Your task to perform on an android device: add a contact in the contacts app Image 0: 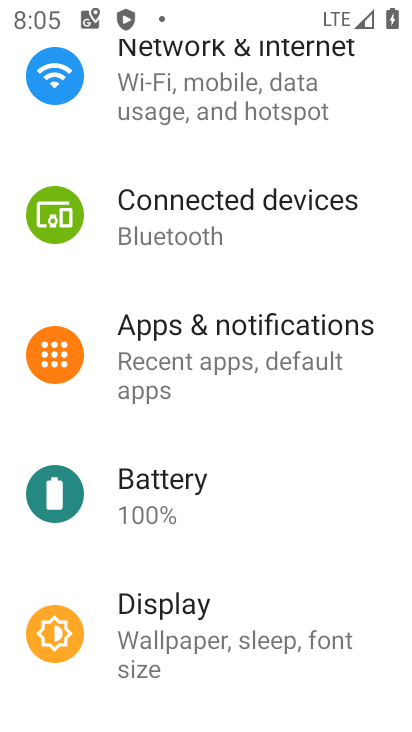
Step 0: press back button
Your task to perform on an android device: add a contact in the contacts app Image 1: 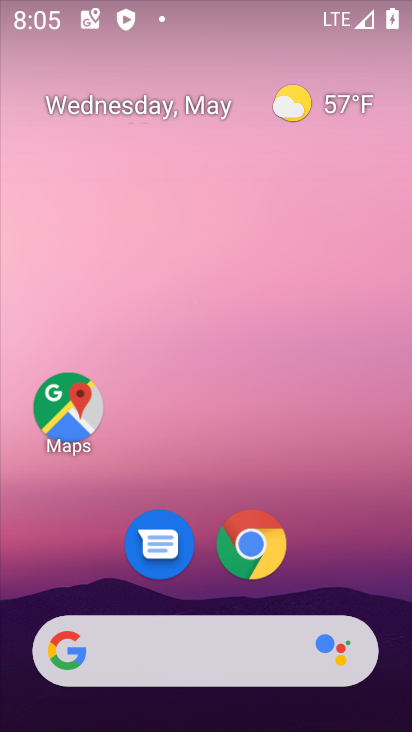
Step 1: drag from (376, 591) to (260, 8)
Your task to perform on an android device: add a contact in the contacts app Image 2: 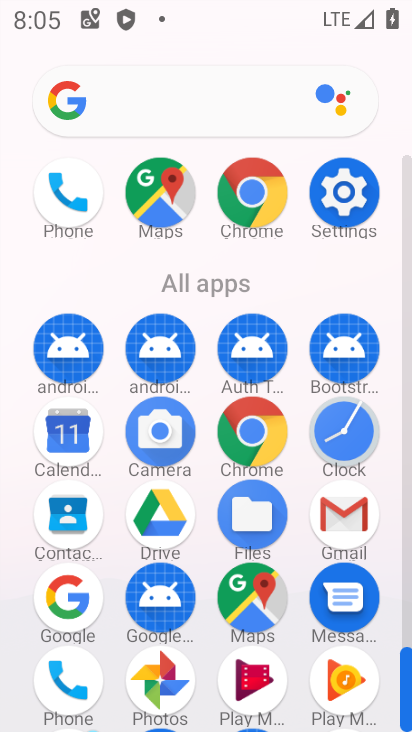
Step 2: drag from (7, 595) to (11, 284)
Your task to perform on an android device: add a contact in the contacts app Image 3: 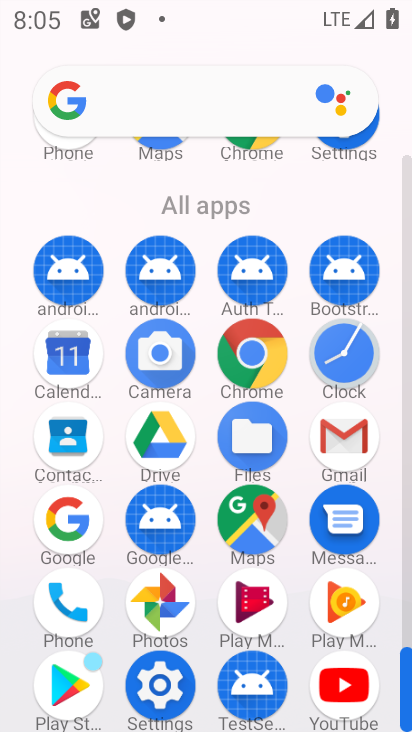
Step 3: click (63, 424)
Your task to perform on an android device: add a contact in the contacts app Image 4: 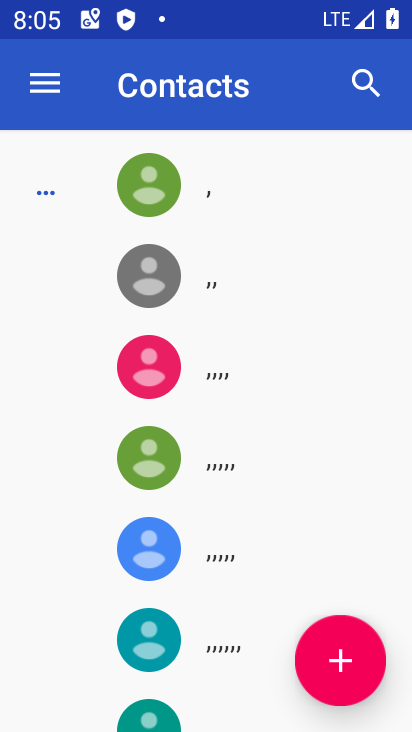
Step 4: click (343, 662)
Your task to perform on an android device: add a contact in the contacts app Image 5: 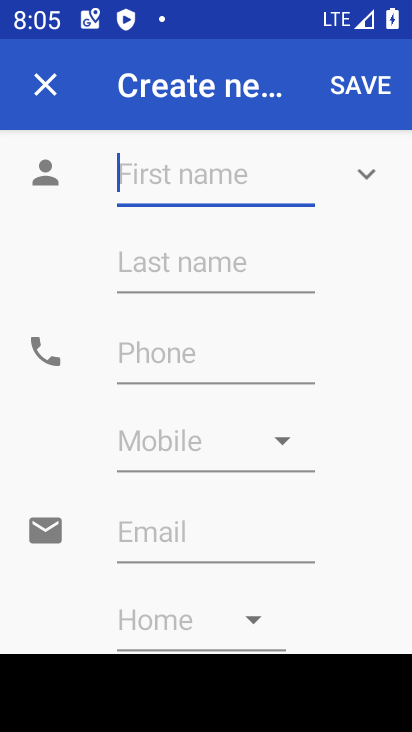
Step 5: type "SDFG"
Your task to perform on an android device: add a contact in the contacts app Image 6: 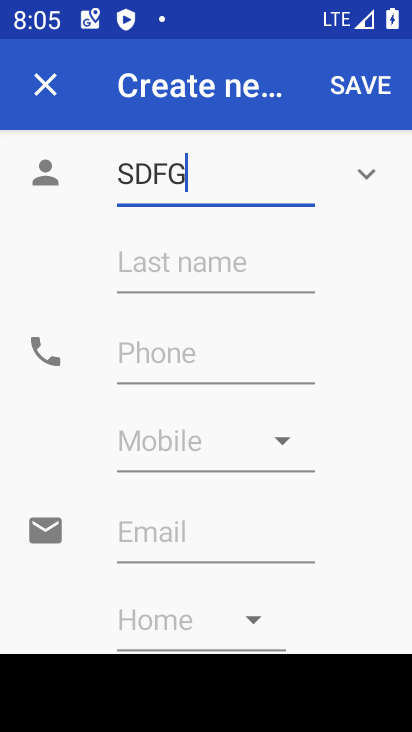
Step 6: type ""
Your task to perform on an android device: add a contact in the contacts app Image 7: 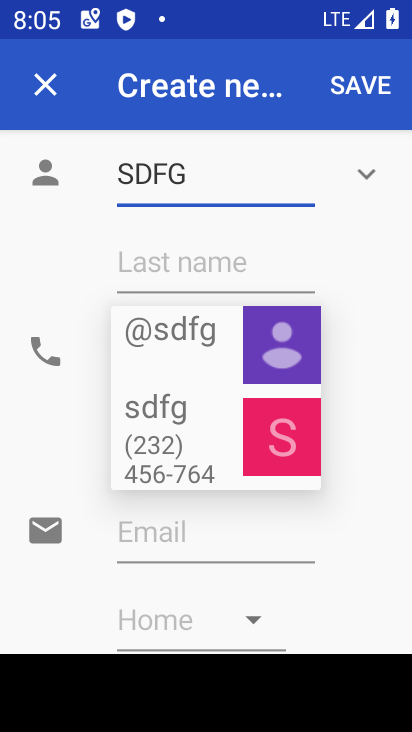
Step 7: click (140, 448)
Your task to perform on an android device: add a contact in the contacts app Image 8: 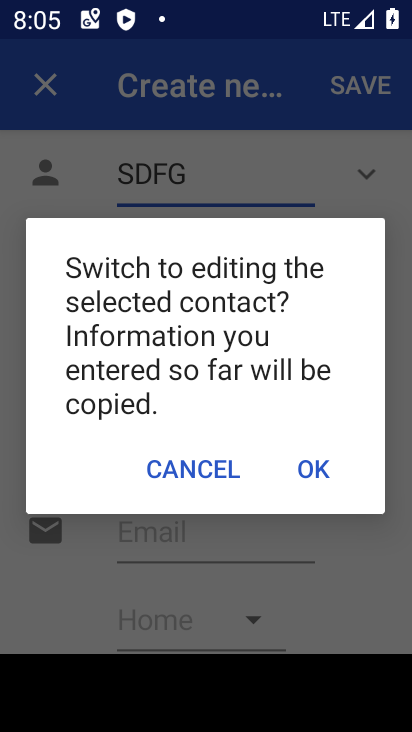
Step 8: click (327, 471)
Your task to perform on an android device: add a contact in the contacts app Image 9: 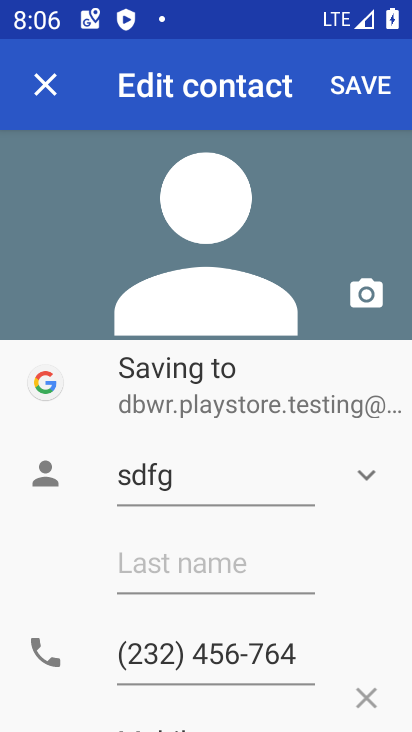
Step 9: click (355, 85)
Your task to perform on an android device: add a contact in the contacts app Image 10: 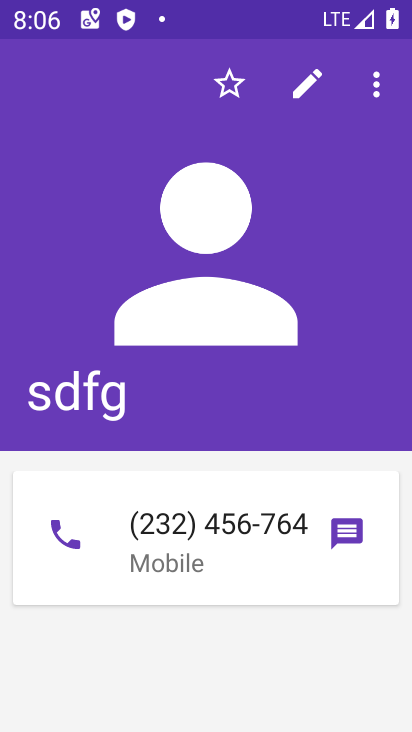
Step 10: task complete